Your task to perform on an android device: Open Android settings Image 0: 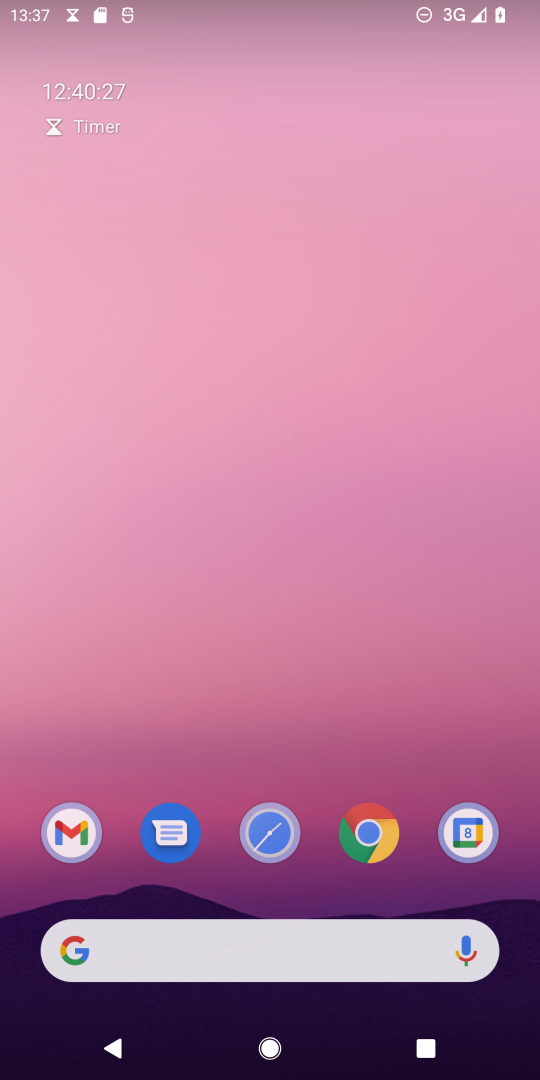
Step 0: press home button
Your task to perform on an android device: Open Android settings Image 1: 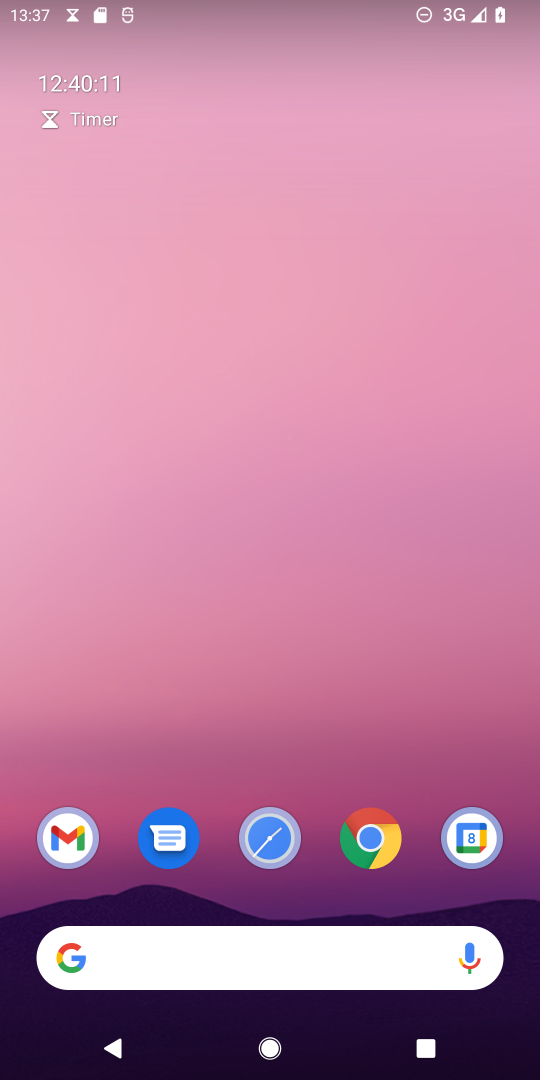
Step 1: drag from (313, 883) to (263, 103)
Your task to perform on an android device: Open Android settings Image 2: 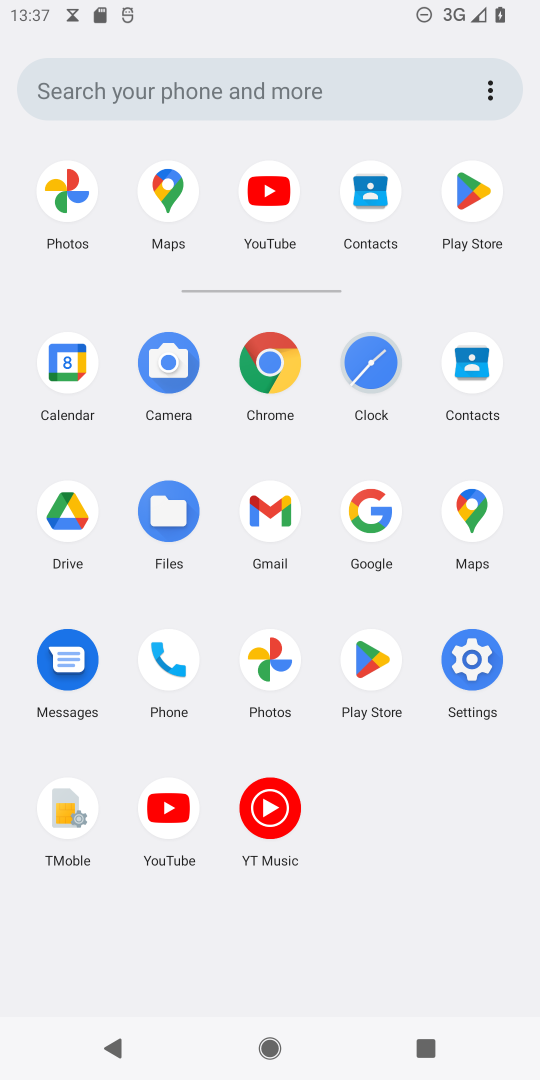
Step 2: click (462, 657)
Your task to perform on an android device: Open Android settings Image 3: 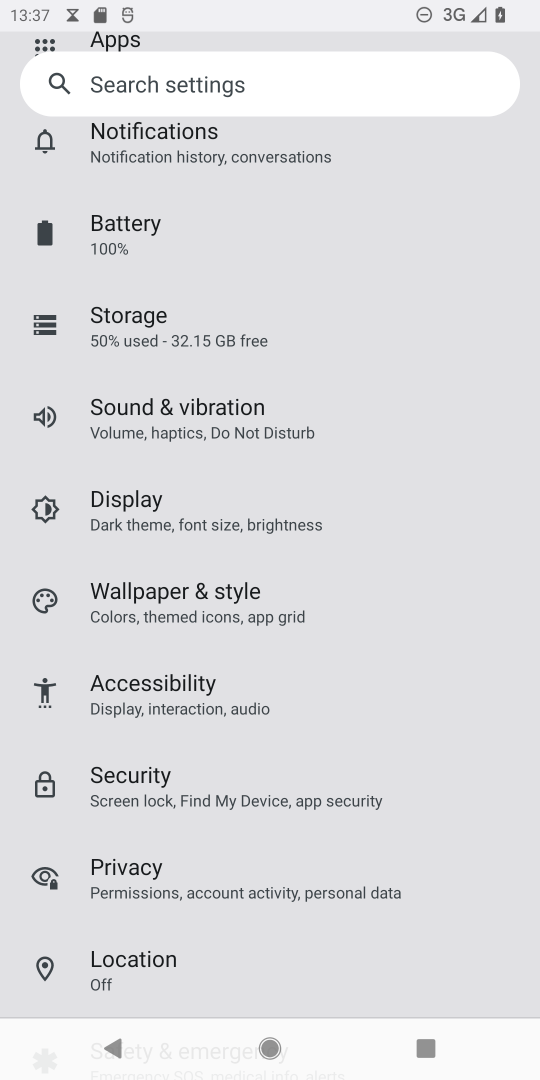
Step 3: task complete